Your task to perform on an android device: Open settings on Google Maps Image 0: 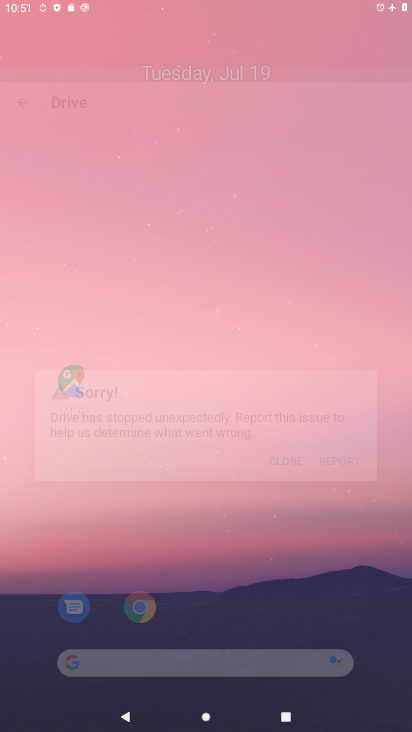
Step 0: drag from (201, 44) to (372, 69)
Your task to perform on an android device: Open settings on Google Maps Image 1: 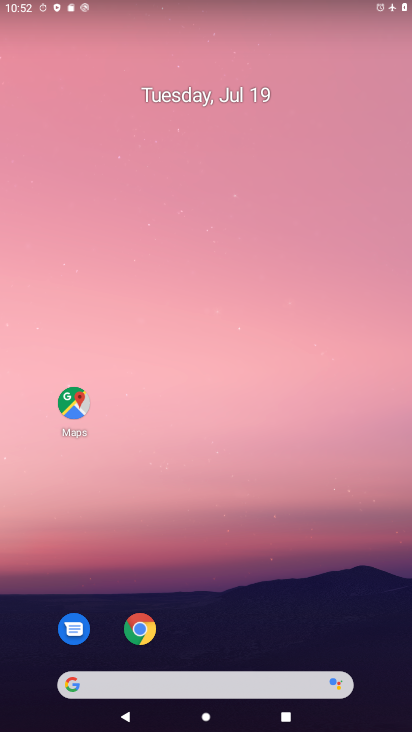
Step 1: drag from (201, 445) to (162, 127)
Your task to perform on an android device: Open settings on Google Maps Image 2: 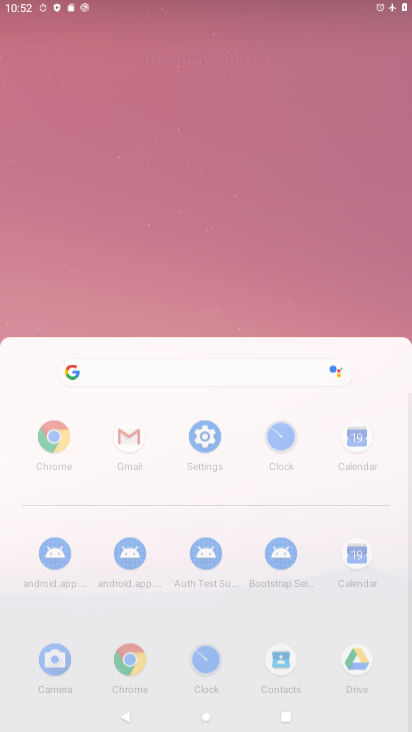
Step 2: drag from (255, 510) to (205, 107)
Your task to perform on an android device: Open settings on Google Maps Image 3: 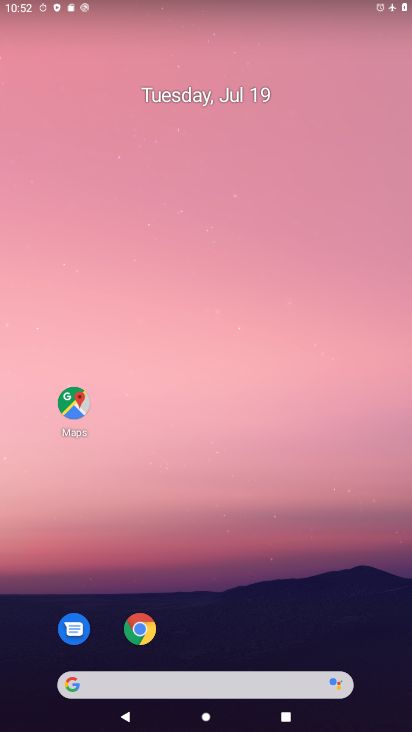
Step 3: drag from (226, 255) to (225, 131)
Your task to perform on an android device: Open settings on Google Maps Image 4: 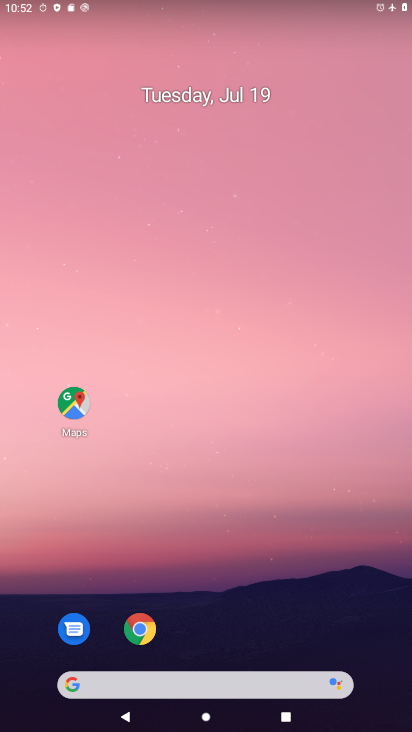
Step 4: drag from (184, 587) to (154, 134)
Your task to perform on an android device: Open settings on Google Maps Image 5: 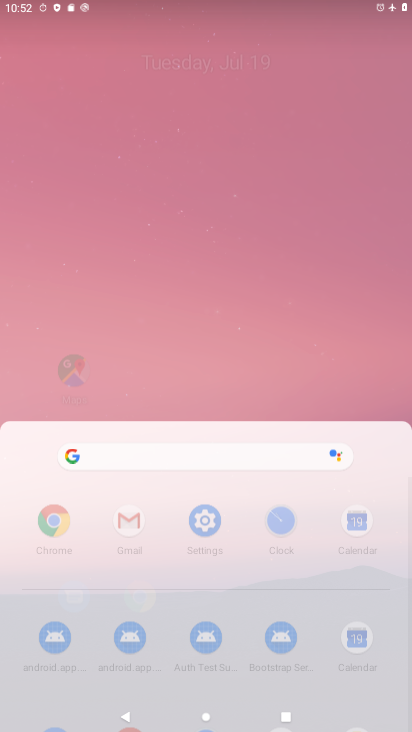
Step 5: drag from (219, 498) to (195, 137)
Your task to perform on an android device: Open settings on Google Maps Image 6: 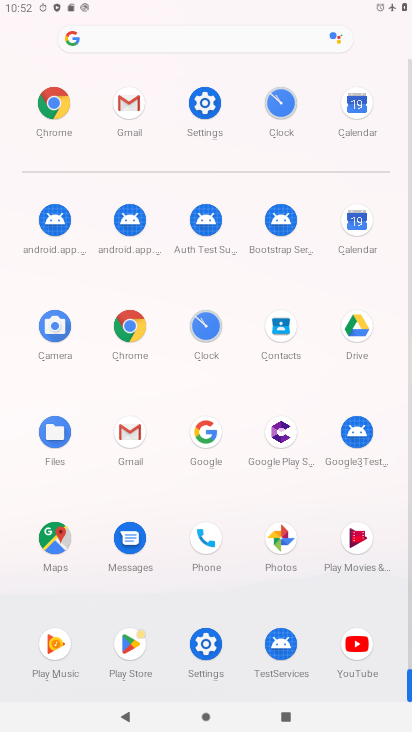
Step 6: click (45, 540)
Your task to perform on an android device: Open settings on Google Maps Image 7: 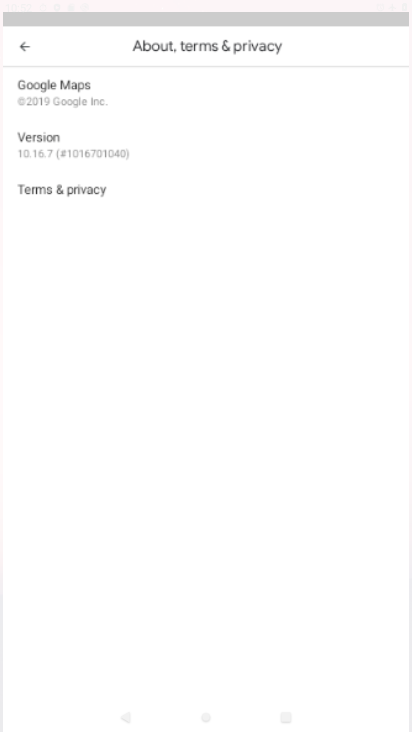
Step 7: click (54, 539)
Your task to perform on an android device: Open settings on Google Maps Image 8: 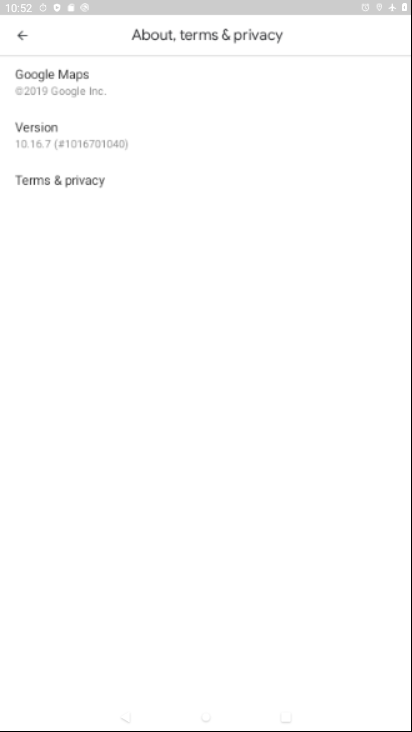
Step 8: click (54, 539)
Your task to perform on an android device: Open settings on Google Maps Image 9: 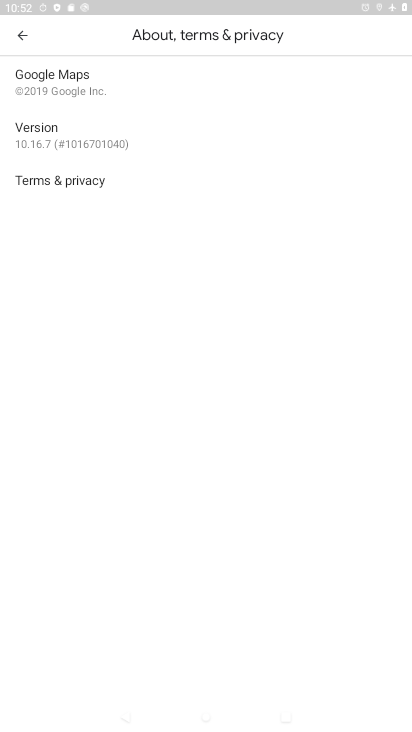
Step 9: click (21, 33)
Your task to perform on an android device: Open settings on Google Maps Image 10: 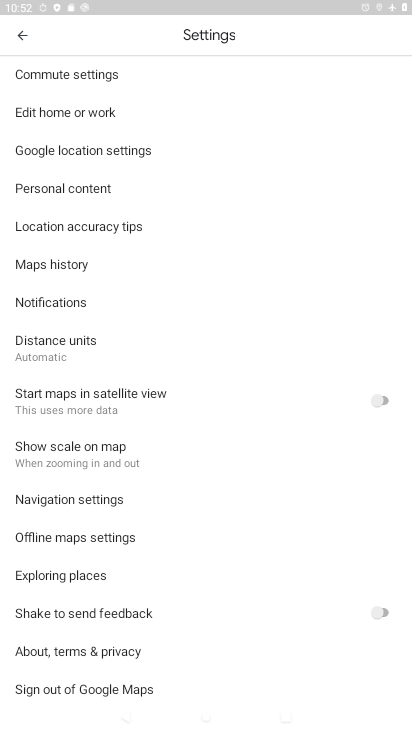
Step 10: task complete